Your task to perform on an android device: change the clock display to analog Image 0: 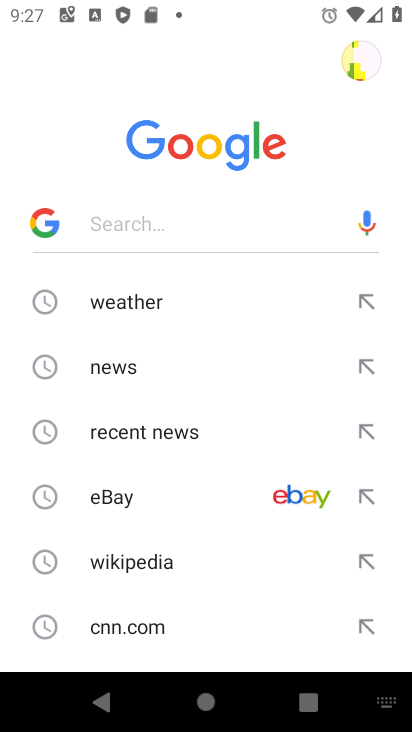
Step 0: press back button
Your task to perform on an android device: change the clock display to analog Image 1: 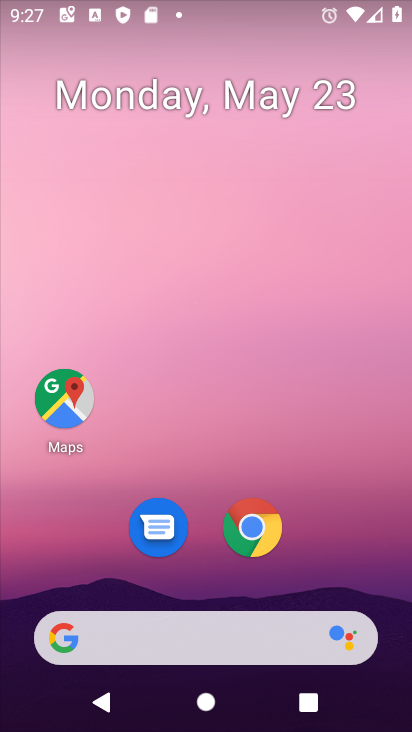
Step 1: drag from (324, 549) to (271, 29)
Your task to perform on an android device: change the clock display to analog Image 2: 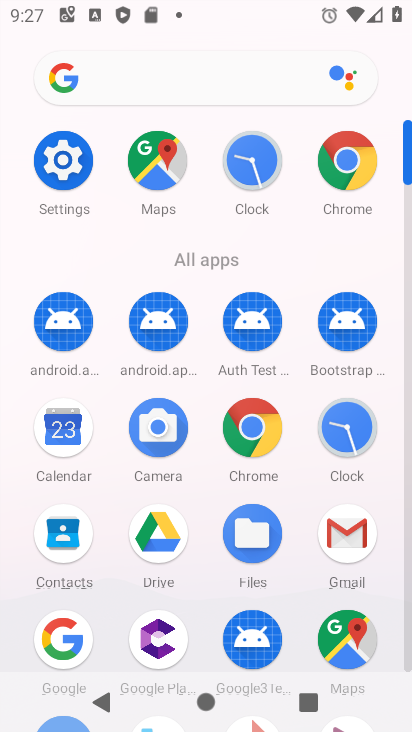
Step 2: drag from (13, 605) to (34, 257)
Your task to perform on an android device: change the clock display to analog Image 3: 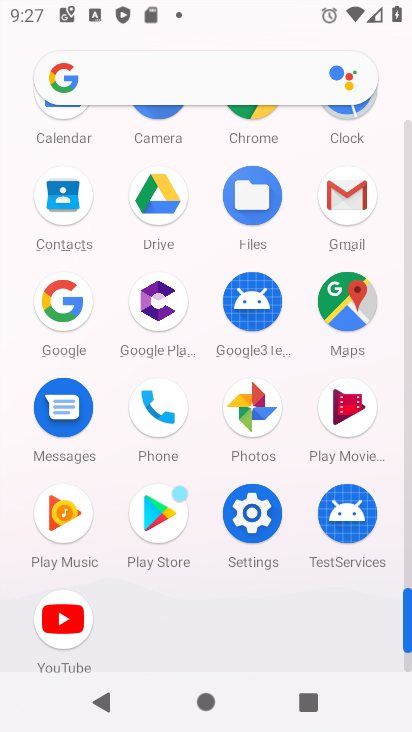
Step 3: drag from (23, 192) to (12, 538)
Your task to perform on an android device: change the clock display to analog Image 4: 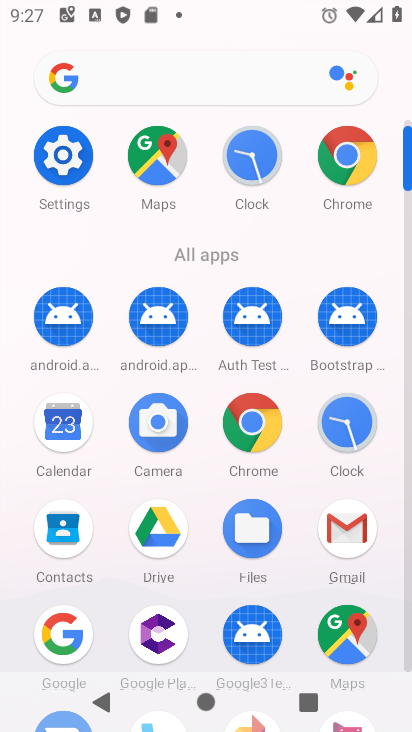
Step 4: click (348, 420)
Your task to perform on an android device: change the clock display to analog Image 5: 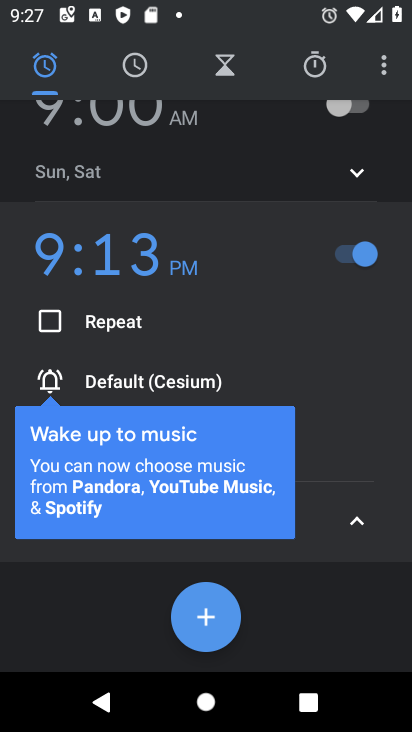
Step 5: click (383, 57)
Your task to perform on an android device: change the clock display to analog Image 6: 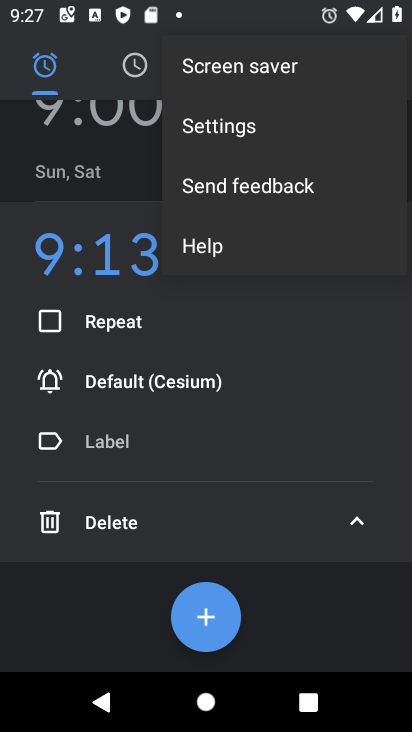
Step 6: click (249, 124)
Your task to perform on an android device: change the clock display to analog Image 7: 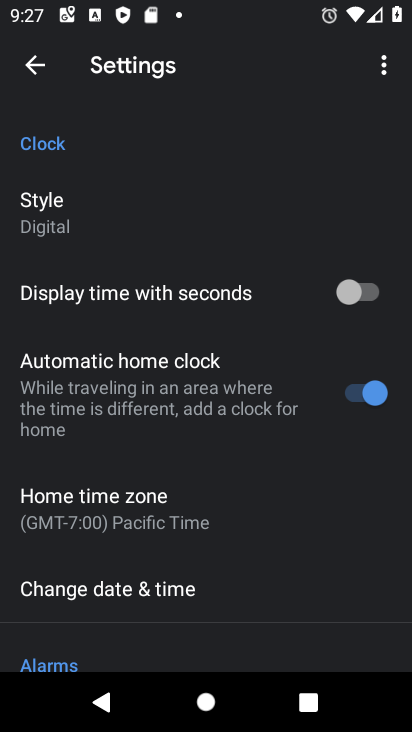
Step 7: click (114, 202)
Your task to perform on an android device: change the clock display to analog Image 8: 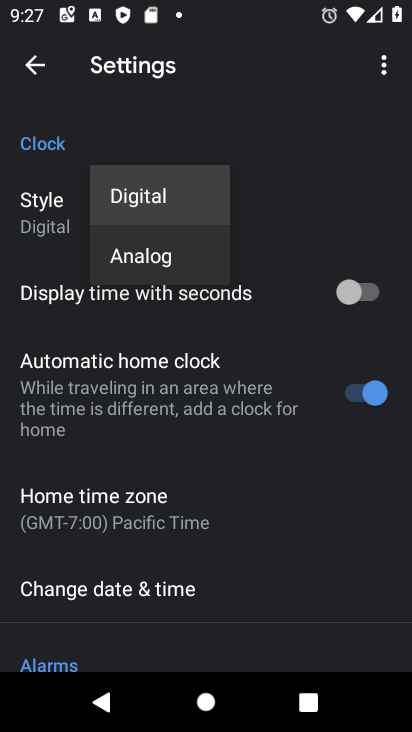
Step 8: click (138, 248)
Your task to perform on an android device: change the clock display to analog Image 9: 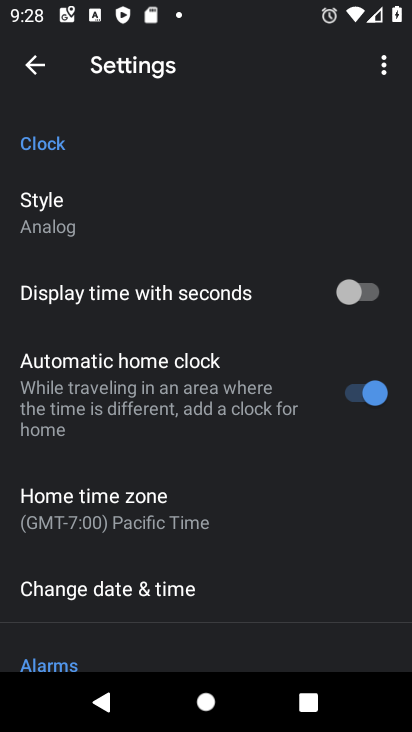
Step 9: task complete